Your task to perform on an android device: Go to notification settings Image 0: 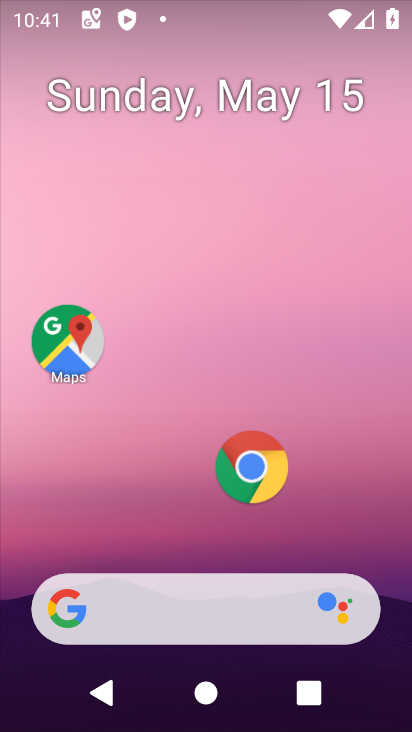
Step 0: drag from (262, 487) to (180, 10)
Your task to perform on an android device: Go to notification settings Image 1: 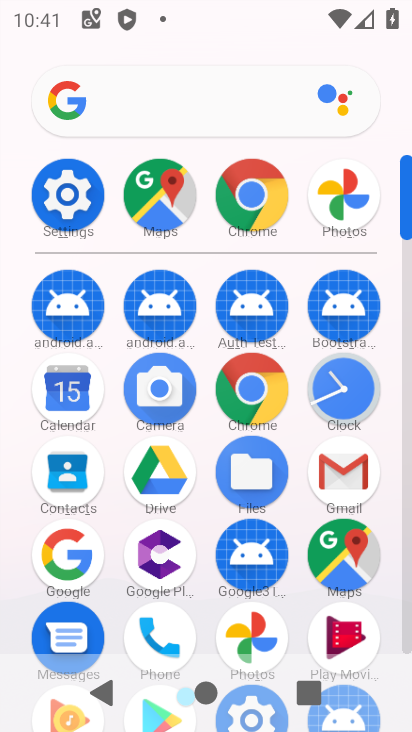
Step 1: click (70, 192)
Your task to perform on an android device: Go to notification settings Image 2: 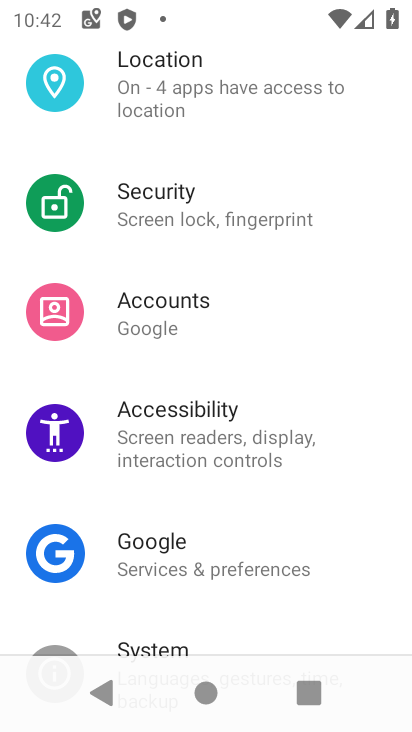
Step 2: drag from (209, 83) to (285, 678)
Your task to perform on an android device: Go to notification settings Image 3: 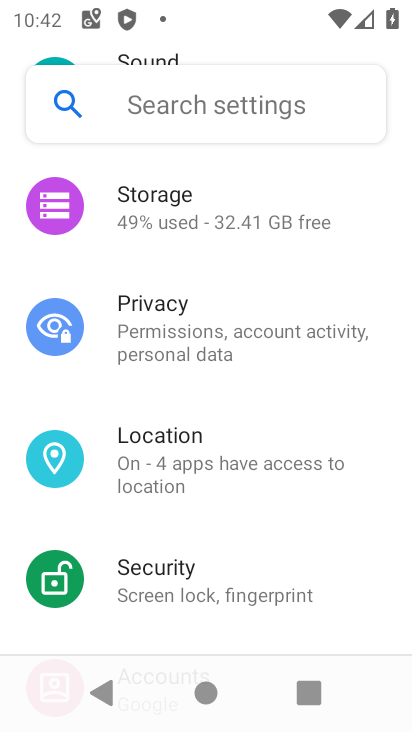
Step 3: drag from (262, 259) to (258, 521)
Your task to perform on an android device: Go to notification settings Image 4: 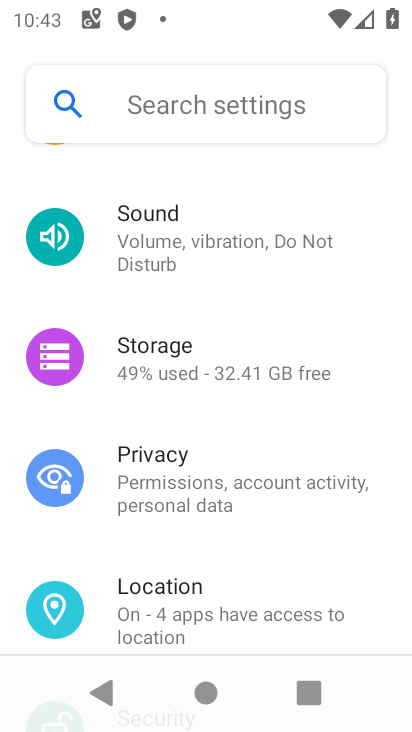
Step 4: drag from (284, 256) to (302, 676)
Your task to perform on an android device: Go to notification settings Image 5: 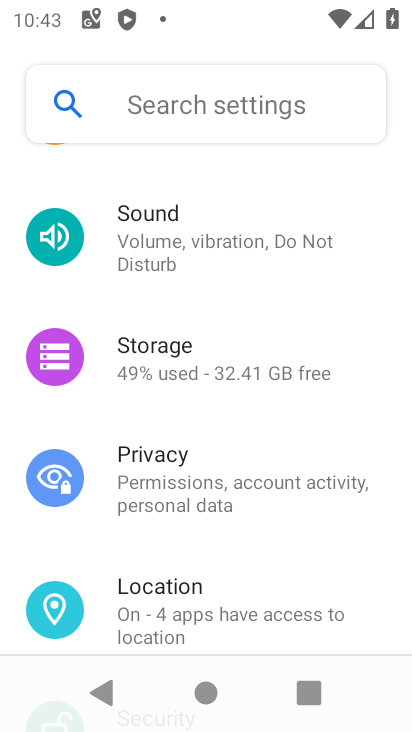
Step 5: drag from (219, 308) to (266, 666)
Your task to perform on an android device: Go to notification settings Image 6: 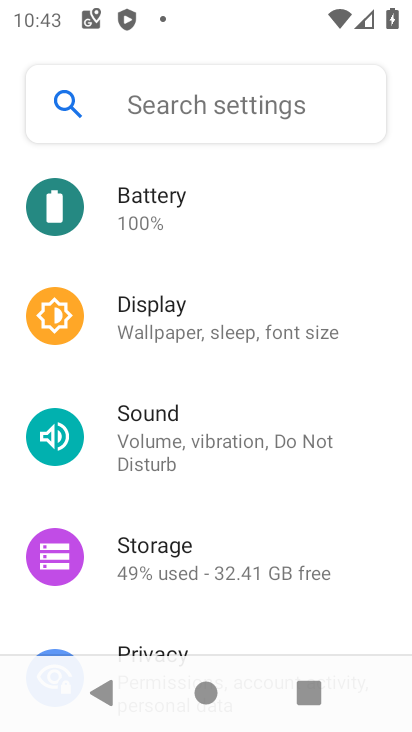
Step 6: drag from (227, 258) to (267, 730)
Your task to perform on an android device: Go to notification settings Image 7: 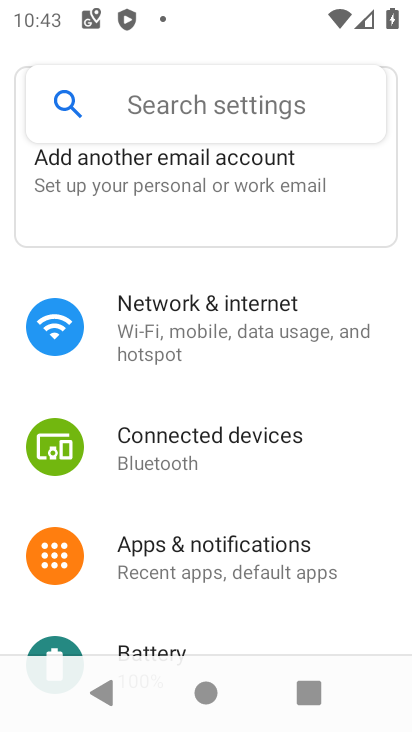
Step 7: click (229, 581)
Your task to perform on an android device: Go to notification settings Image 8: 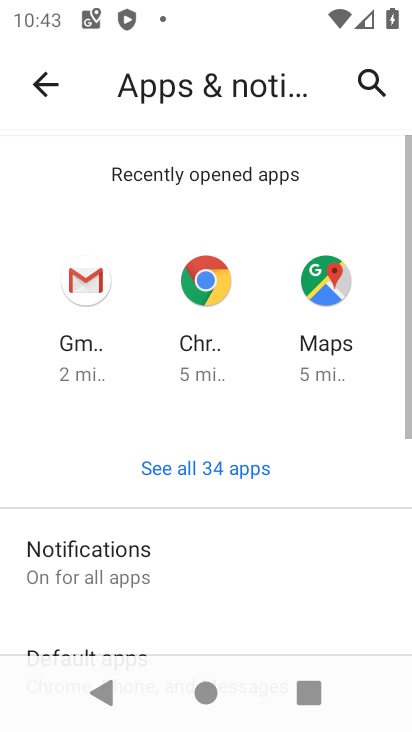
Step 8: click (164, 538)
Your task to perform on an android device: Go to notification settings Image 9: 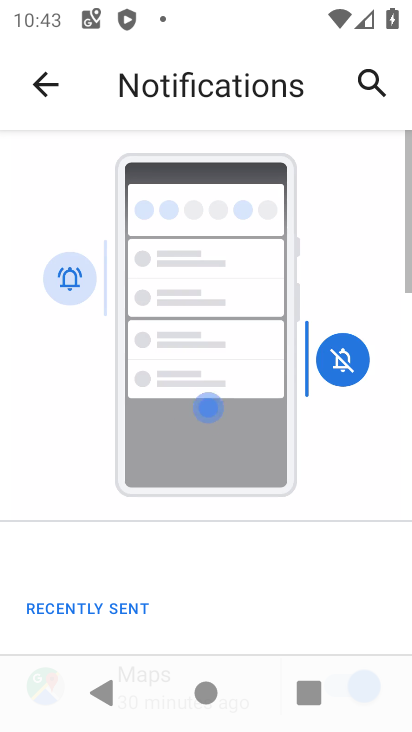
Step 9: task complete